Your task to perform on an android device: Go to display settings Image 0: 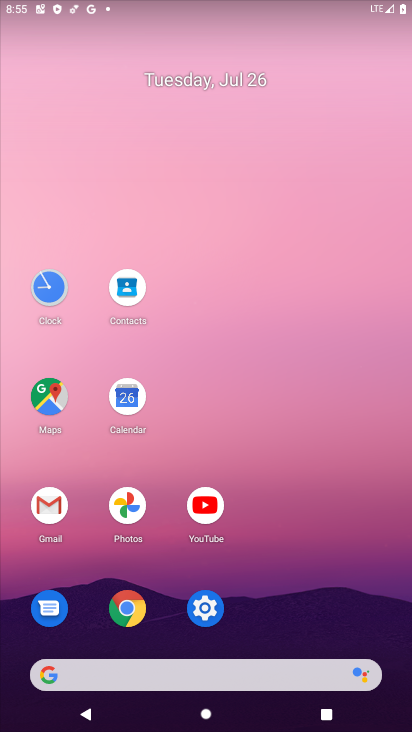
Step 0: click (206, 613)
Your task to perform on an android device: Go to display settings Image 1: 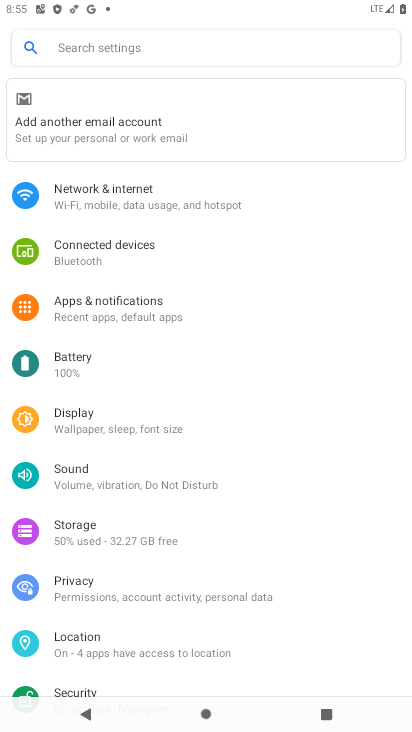
Step 1: click (75, 414)
Your task to perform on an android device: Go to display settings Image 2: 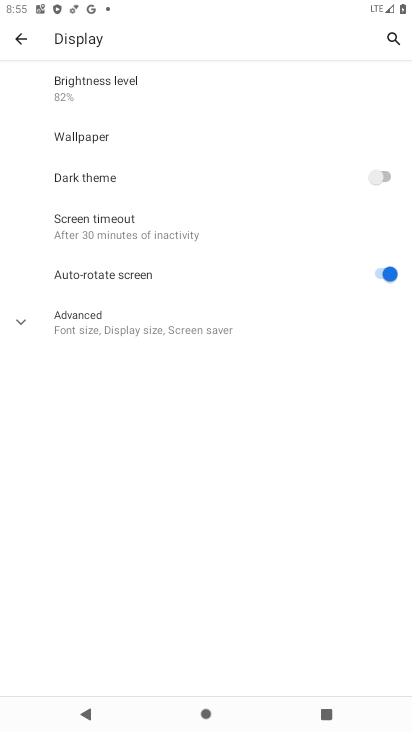
Step 2: task complete